Your task to perform on an android device: turn on bluetooth scan Image 0: 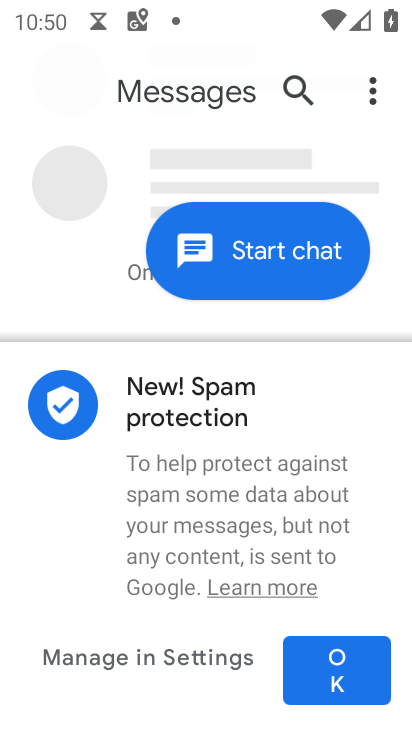
Step 0: press home button
Your task to perform on an android device: turn on bluetooth scan Image 1: 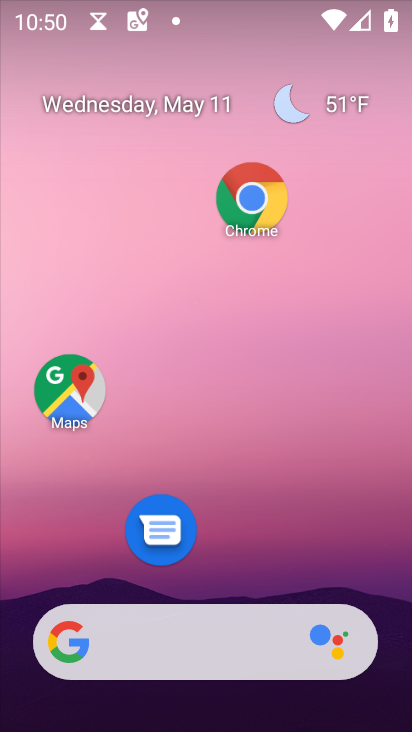
Step 1: drag from (310, 559) to (228, 84)
Your task to perform on an android device: turn on bluetooth scan Image 2: 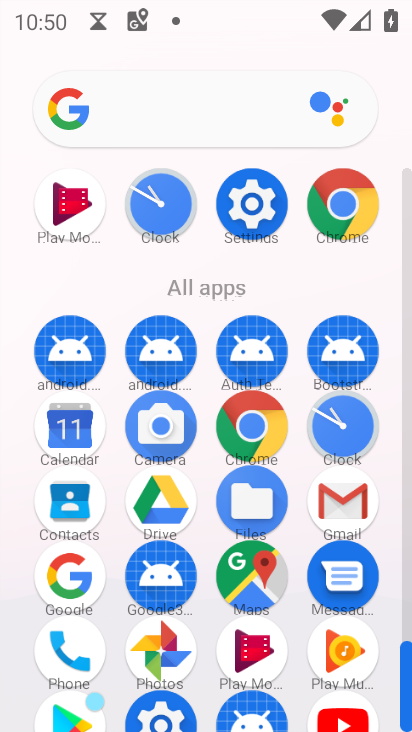
Step 2: click (234, 205)
Your task to perform on an android device: turn on bluetooth scan Image 3: 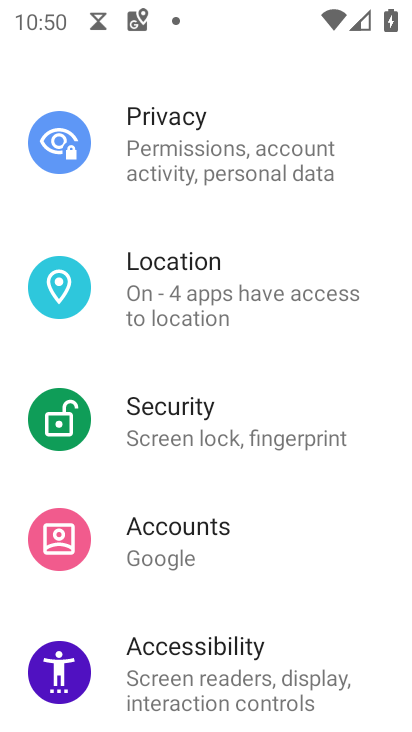
Step 3: click (221, 276)
Your task to perform on an android device: turn on bluetooth scan Image 4: 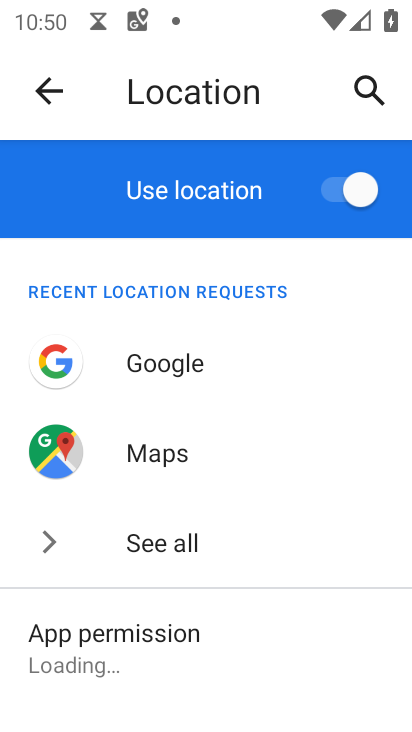
Step 4: drag from (189, 623) to (239, 308)
Your task to perform on an android device: turn on bluetooth scan Image 5: 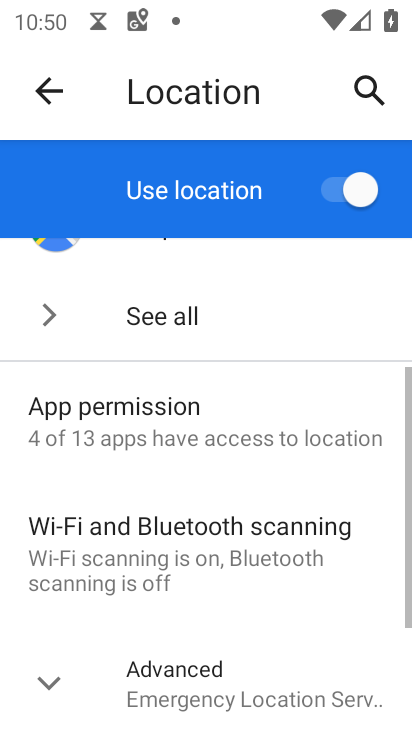
Step 5: click (160, 540)
Your task to perform on an android device: turn on bluetooth scan Image 6: 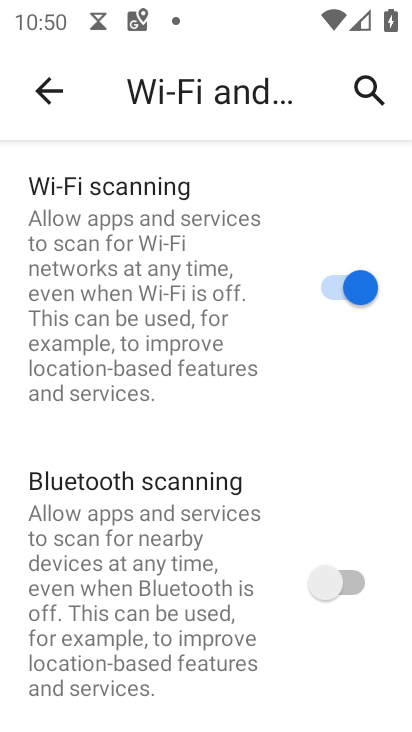
Step 6: click (331, 574)
Your task to perform on an android device: turn on bluetooth scan Image 7: 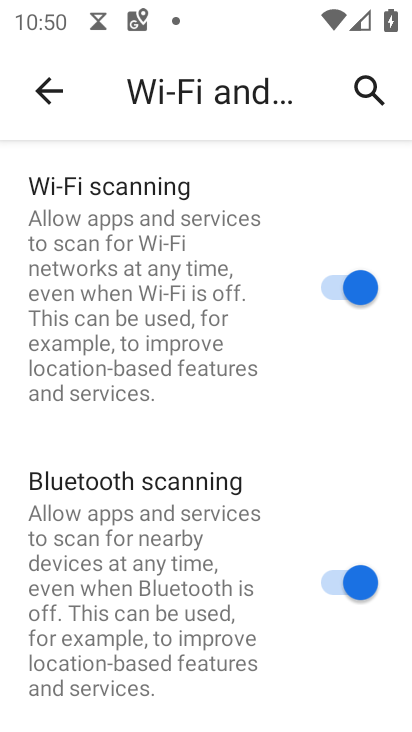
Step 7: task complete